Your task to perform on an android device: What is the recent news? Image 0: 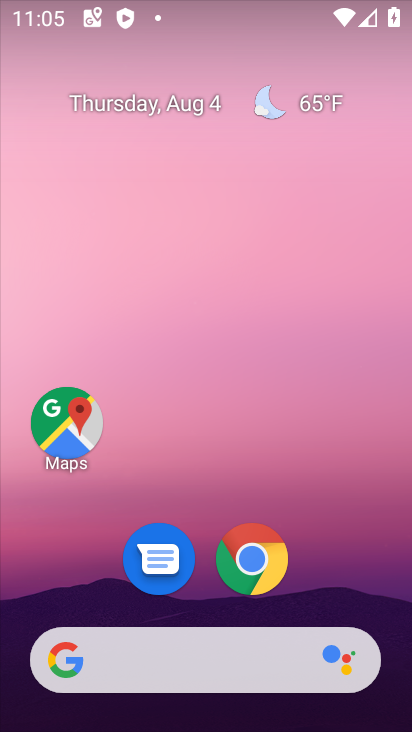
Step 0: drag from (14, 366) to (346, 383)
Your task to perform on an android device: What is the recent news? Image 1: 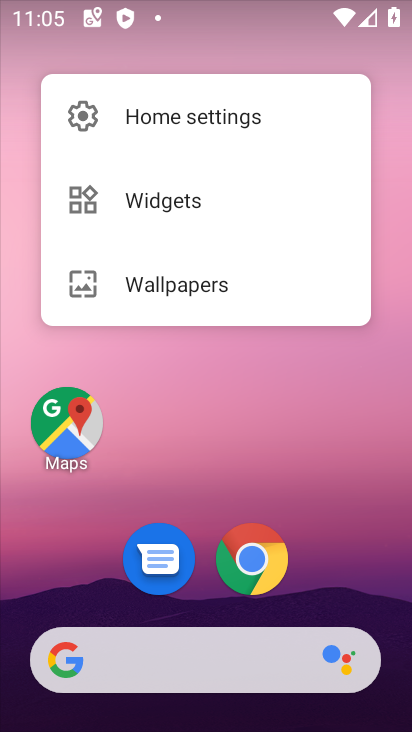
Step 1: click (353, 397)
Your task to perform on an android device: What is the recent news? Image 2: 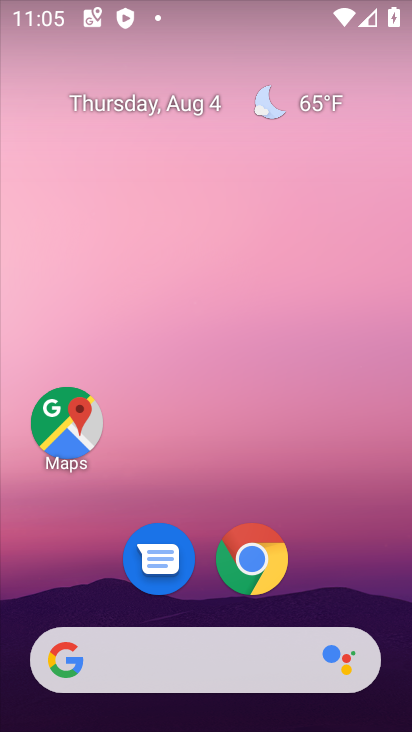
Step 2: task complete